Your task to perform on an android device: Go to wifi settings Image 0: 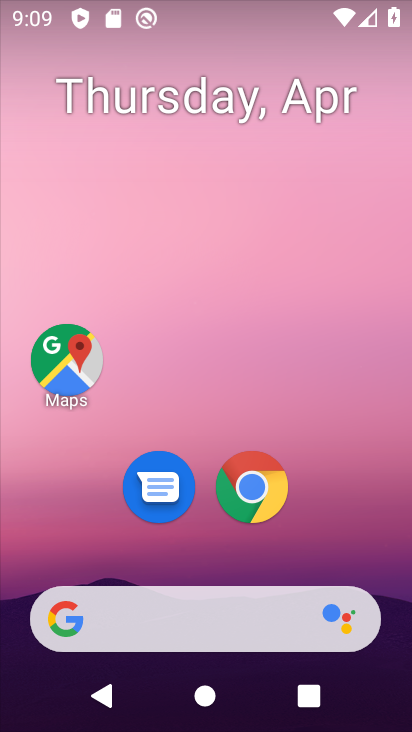
Step 0: drag from (348, 502) to (349, 95)
Your task to perform on an android device: Go to wifi settings Image 1: 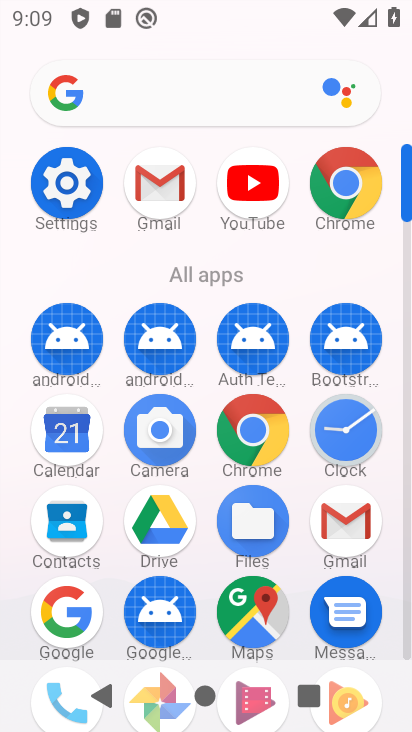
Step 1: click (72, 197)
Your task to perform on an android device: Go to wifi settings Image 2: 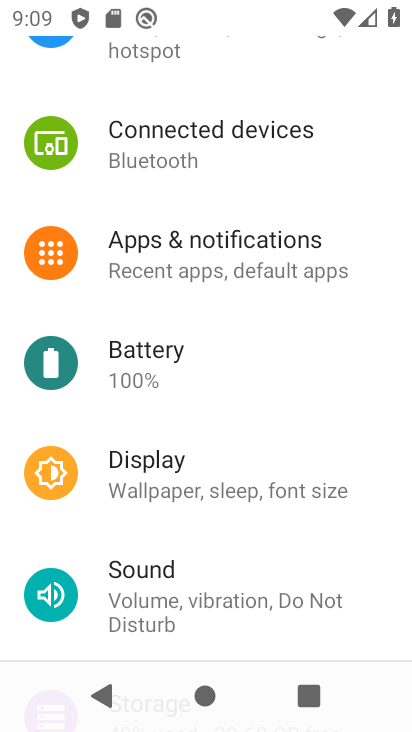
Step 2: drag from (364, 209) to (376, 467)
Your task to perform on an android device: Go to wifi settings Image 3: 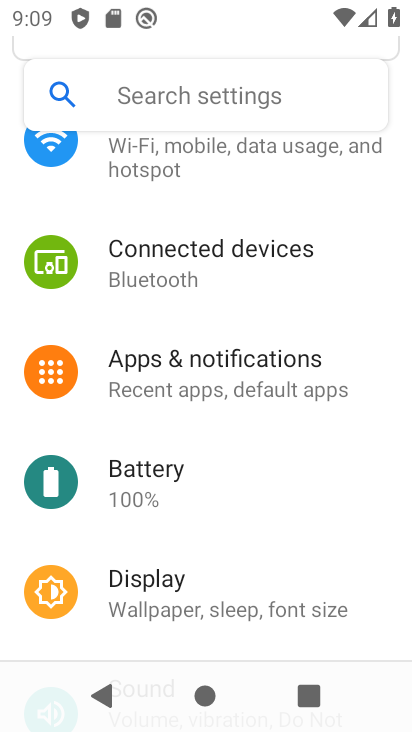
Step 3: drag from (385, 223) to (363, 496)
Your task to perform on an android device: Go to wifi settings Image 4: 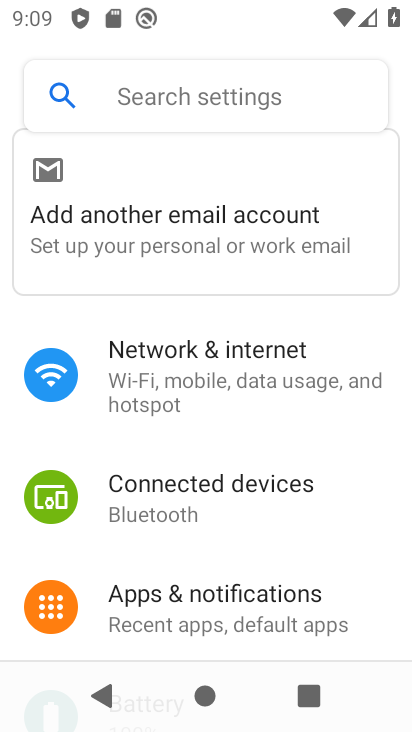
Step 4: click (281, 374)
Your task to perform on an android device: Go to wifi settings Image 5: 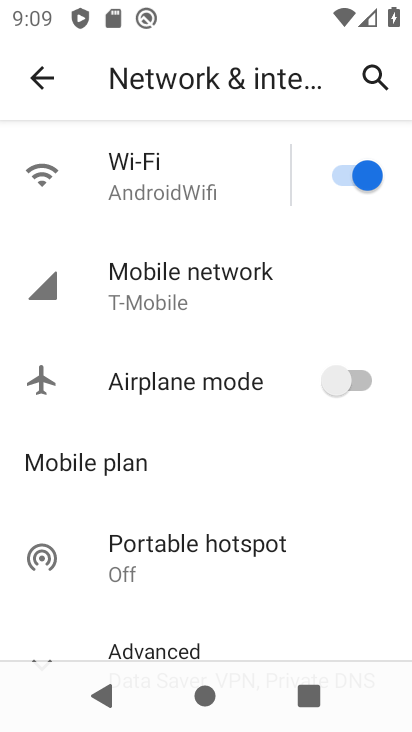
Step 5: click (162, 189)
Your task to perform on an android device: Go to wifi settings Image 6: 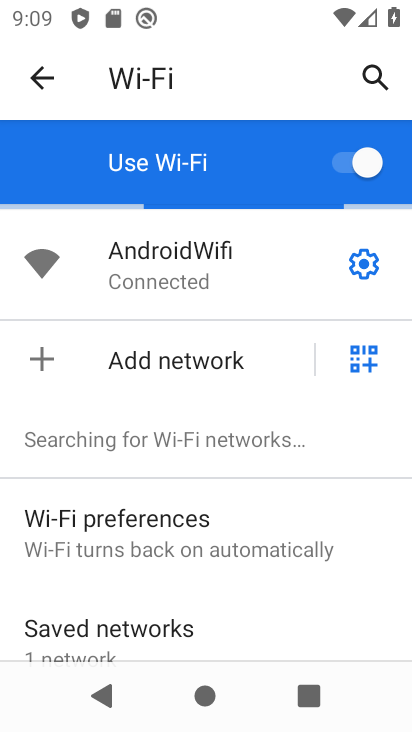
Step 6: task complete